Your task to perform on an android device: open app "Life360: Find Family & Friends" (install if not already installed) Image 0: 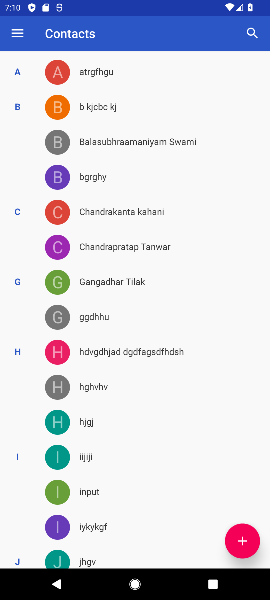
Step 0: press back button
Your task to perform on an android device: open app "Life360: Find Family & Friends" (install if not already installed) Image 1: 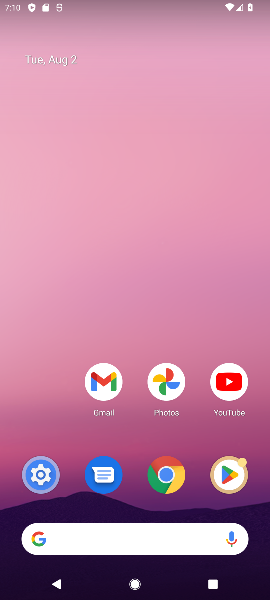
Step 1: drag from (179, 532) to (128, 128)
Your task to perform on an android device: open app "Life360: Find Family & Friends" (install if not already installed) Image 2: 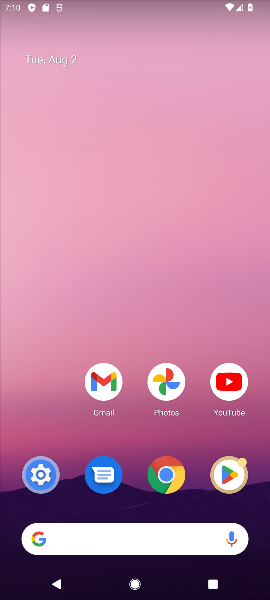
Step 2: drag from (167, 464) to (142, 63)
Your task to perform on an android device: open app "Life360: Find Family & Friends" (install if not already installed) Image 3: 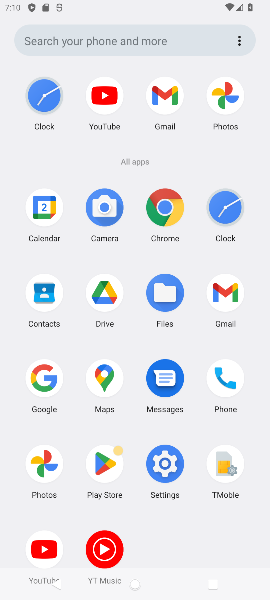
Step 3: drag from (166, 431) to (153, 124)
Your task to perform on an android device: open app "Life360: Find Family & Friends" (install if not already installed) Image 4: 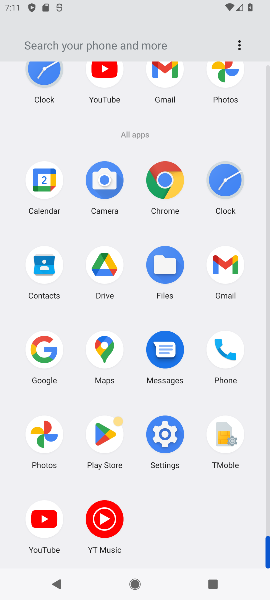
Step 4: click (109, 435)
Your task to perform on an android device: open app "Life360: Find Family & Friends" (install if not already installed) Image 5: 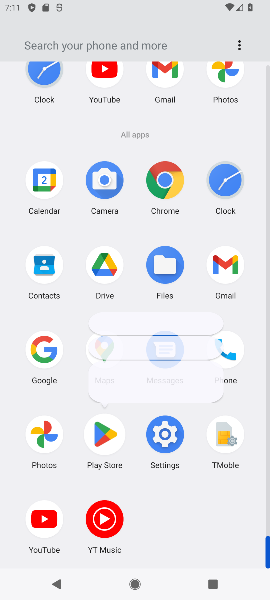
Step 5: click (106, 435)
Your task to perform on an android device: open app "Life360: Find Family & Friends" (install if not already installed) Image 6: 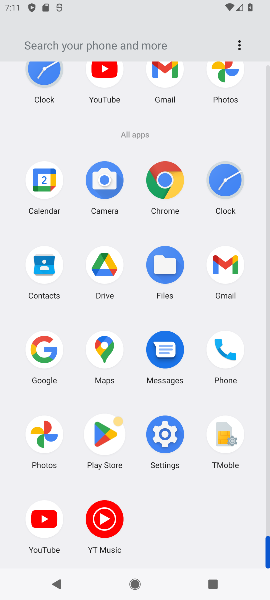
Step 6: click (106, 435)
Your task to perform on an android device: open app "Life360: Find Family & Friends" (install if not already installed) Image 7: 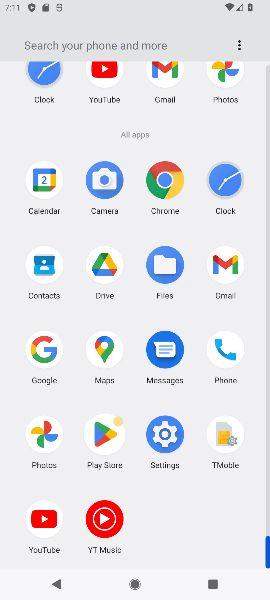
Step 7: click (106, 437)
Your task to perform on an android device: open app "Life360: Find Family & Friends" (install if not already installed) Image 8: 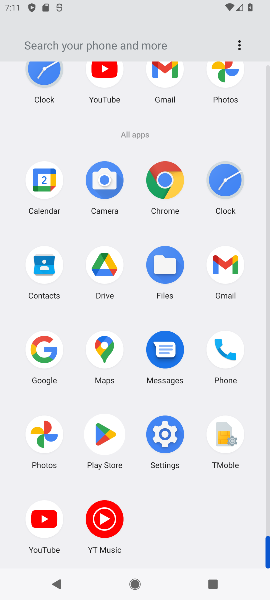
Step 8: click (103, 438)
Your task to perform on an android device: open app "Life360: Find Family & Friends" (install if not already installed) Image 9: 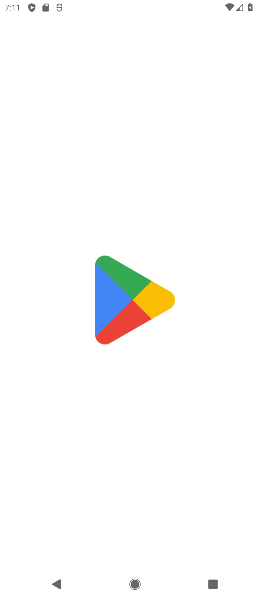
Step 9: click (103, 438)
Your task to perform on an android device: open app "Life360: Find Family & Friends" (install if not already installed) Image 10: 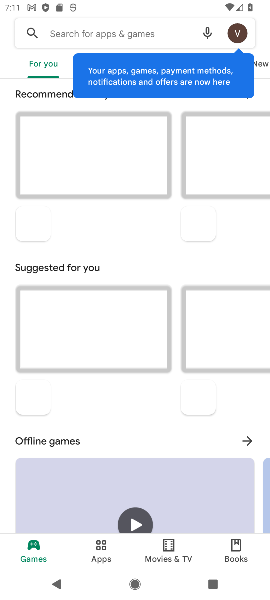
Step 10: click (109, 27)
Your task to perform on an android device: open app "Life360: Find Family & Friends" (install if not already installed) Image 11: 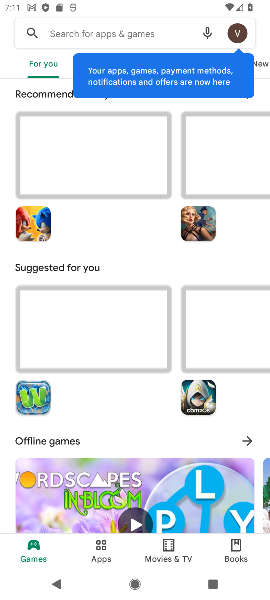
Step 11: click (96, 29)
Your task to perform on an android device: open app "Life360: Find Family & Friends" (install if not already installed) Image 12: 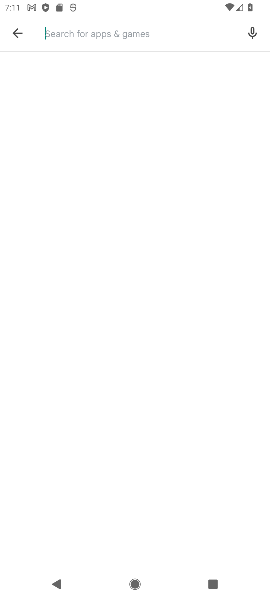
Step 12: click (101, 26)
Your task to perform on an android device: open app "Life360: Find Family & Friends" (install if not already installed) Image 13: 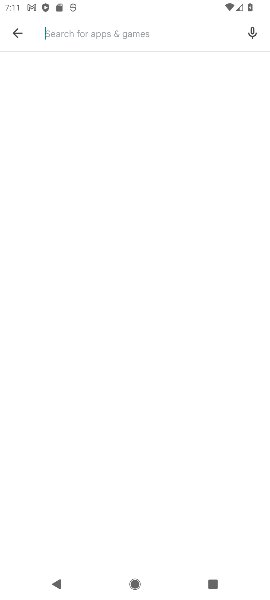
Step 13: click (103, 30)
Your task to perform on an android device: open app "Life360: Find Family & Friends" (install if not already installed) Image 14: 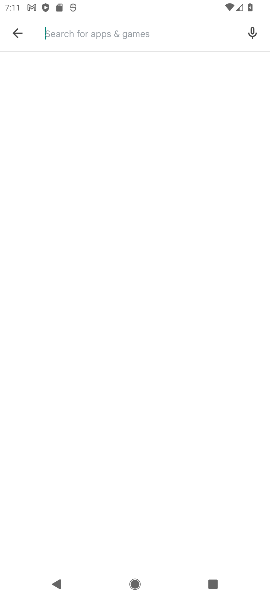
Step 14: click (103, 30)
Your task to perform on an android device: open app "Life360: Find Family & Friends" (install if not already installed) Image 15: 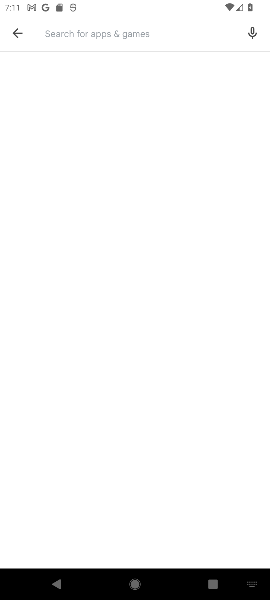
Step 15: type "life360"
Your task to perform on an android device: open app "Life360: Find Family & Friends" (install if not already installed) Image 16: 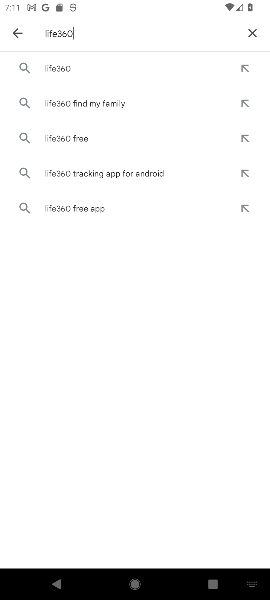
Step 16: click (62, 56)
Your task to perform on an android device: open app "Life360: Find Family & Friends" (install if not already installed) Image 17: 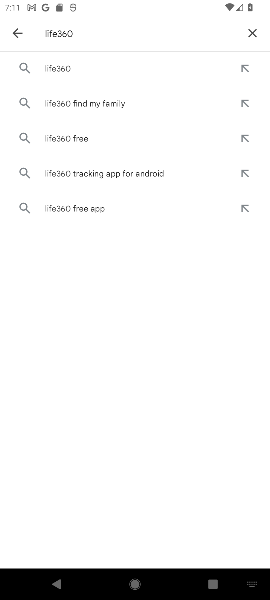
Step 17: click (60, 69)
Your task to perform on an android device: open app "Life360: Find Family & Friends" (install if not already installed) Image 18: 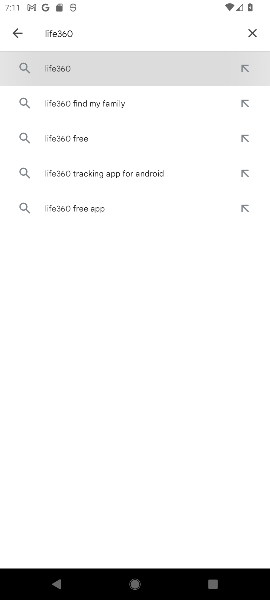
Step 18: click (62, 70)
Your task to perform on an android device: open app "Life360: Find Family & Friends" (install if not already installed) Image 19: 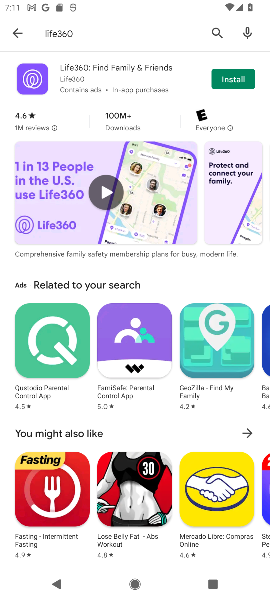
Step 19: click (223, 78)
Your task to perform on an android device: open app "Life360: Find Family & Friends" (install if not already installed) Image 20: 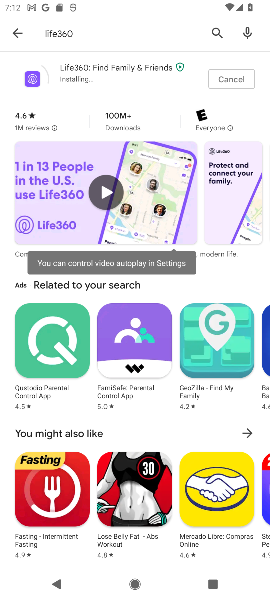
Step 20: task complete